Your task to perform on an android device: turn on priority inbox in the gmail app Image 0: 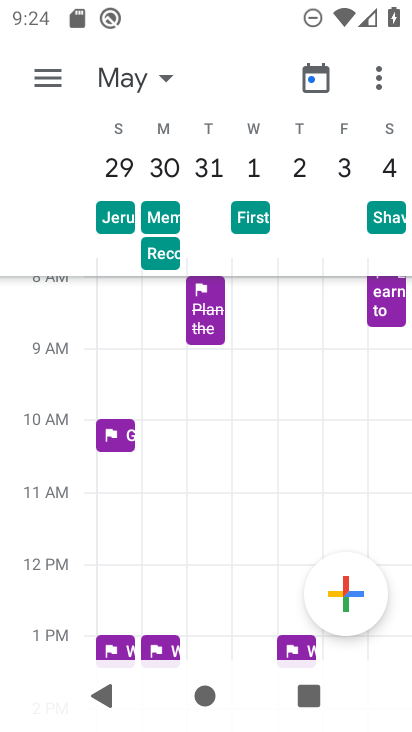
Step 0: press home button
Your task to perform on an android device: turn on priority inbox in the gmail app Image 1: 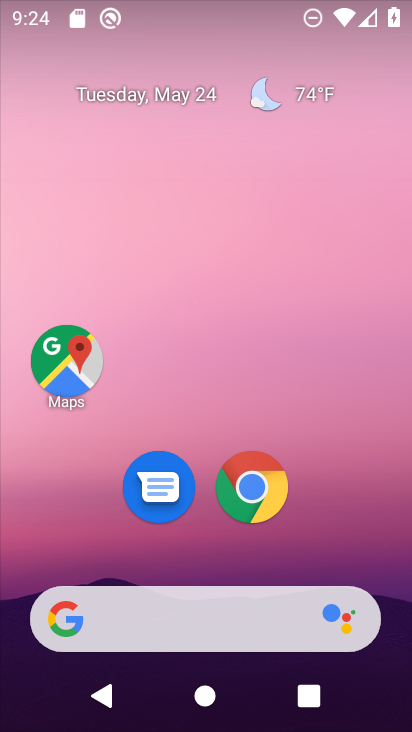
Step 1: drag from (336, 567) to (329, 11)
Your task to perform on an android device: turn on priority inbox in the gmail app Image 2: 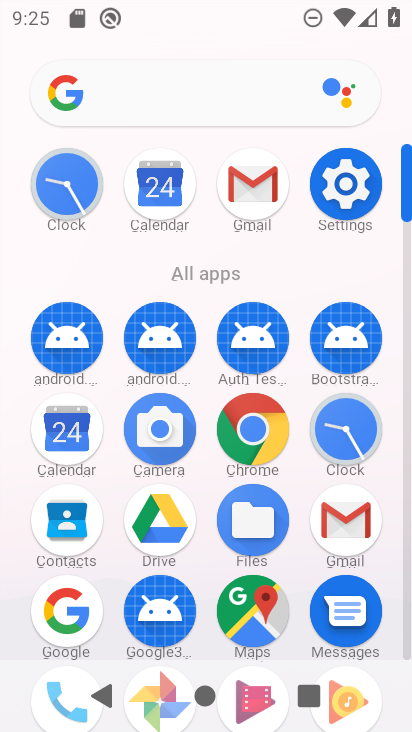
Step 2: click (247, 176)
Your task to perform on an android device: turn on priority inbox in the gmail app Image 3: 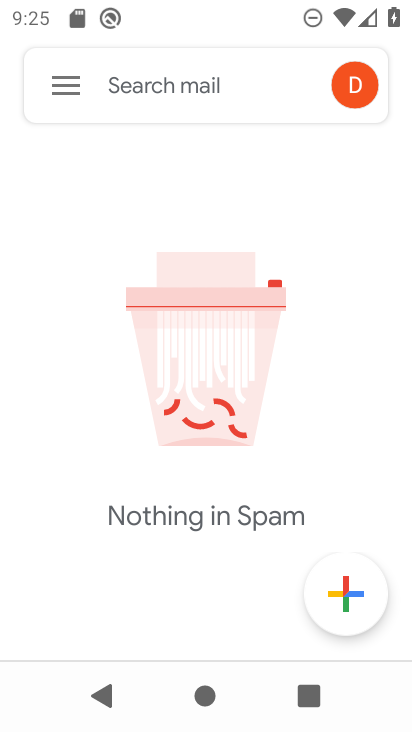
Step 3: click (66, 88)
Your task to perform on an android device: turn on priority inbox in the gmail app Image 4: 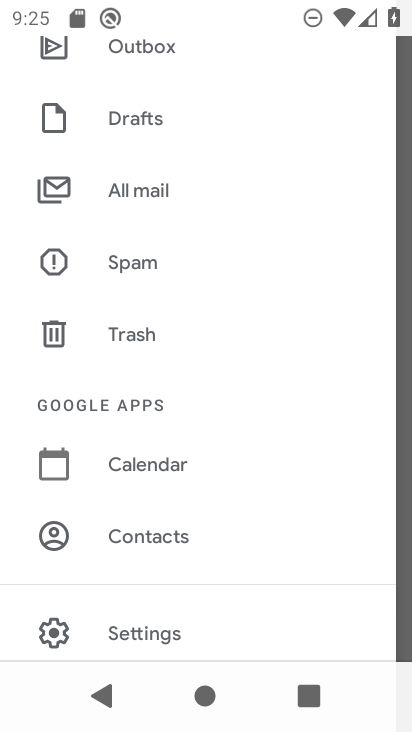
Step 4: click (157, 630)
Your task to perform on an android device: turn on priority inbox in the gmail app Image 5: 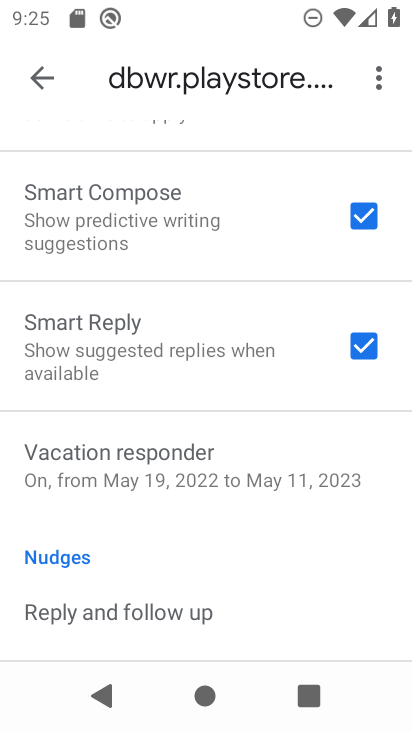
Step 5: drag from (179, 185) to (119, 663)
Your task to perform on an android device: turn on priority inbox in the gmail app Image 6: 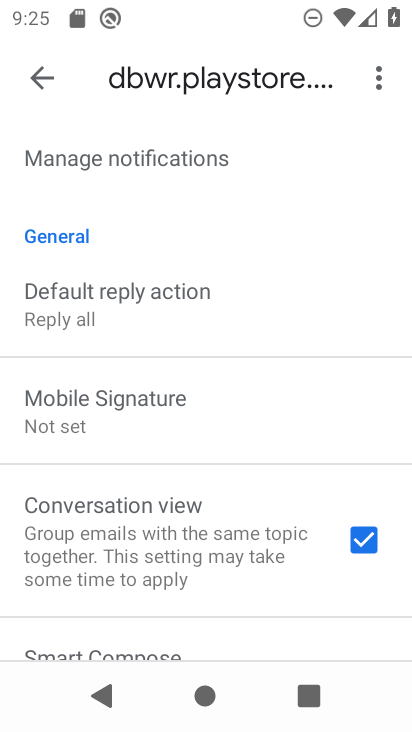
Step 6: drag from (144, 216) to (37, 725)
Your task to perform on an android device: turn on priority inbox in the gmail app Image 7: 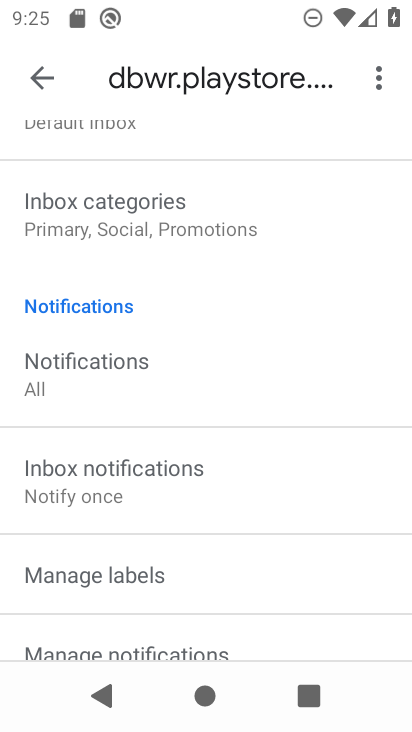
Step 7: drag from (121, 227) to (96, 582)
Your task to perform on an android device: turn on priority inbox in the gmail app Image 8: 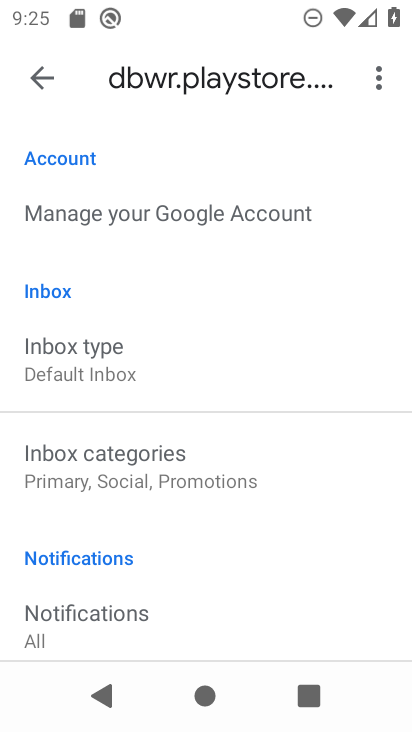
Step 8: click (82, 376)
Your task to perform on an android device: turn on priority inbox in the gmail app Image 9: 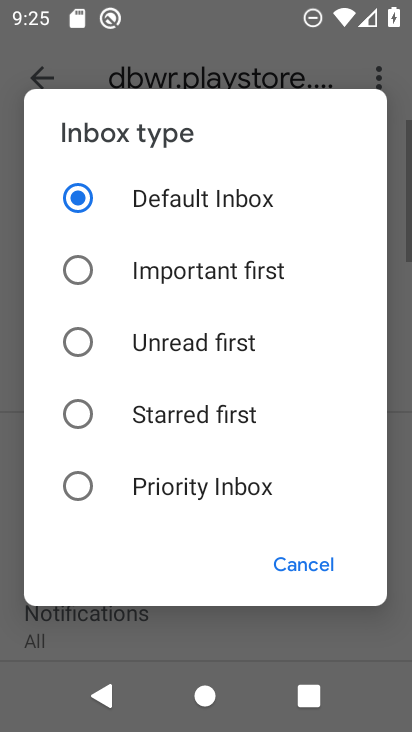
Step 9: click (87, 491)
Your task to perform on an android device: turn on priority inbox in the gmail app Image 10: 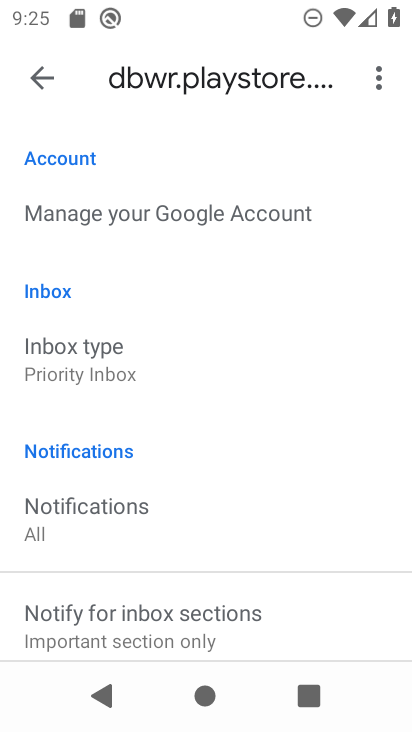
Step 10: task complete